Your task to perform on an android device: Go to Amazon Image 0: 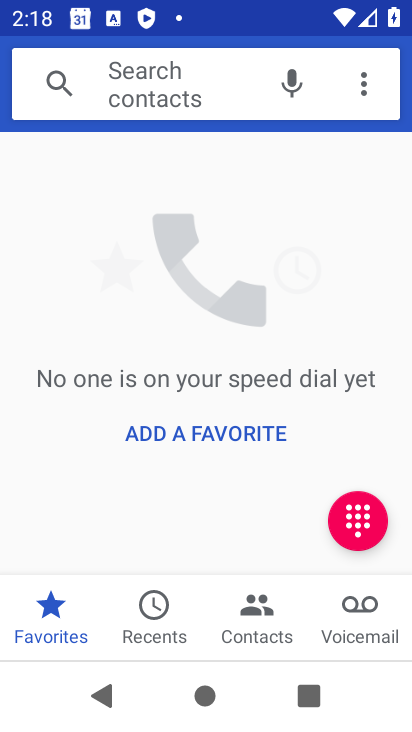
Step 0: press home button
Your task to perform on an android device: Go to Amazon Image 1: 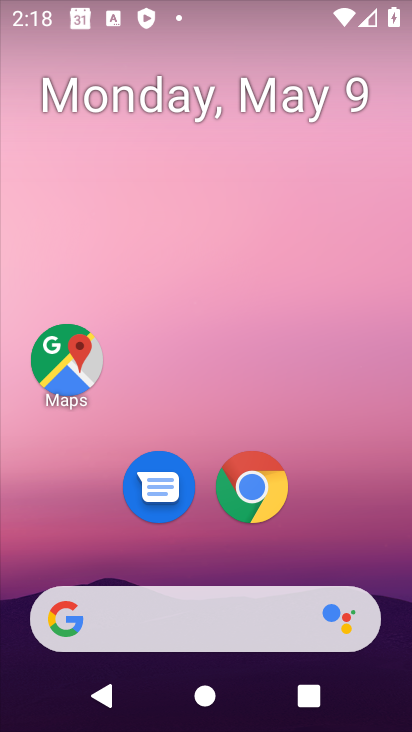
Step 1: click (252, 469)
Your task to perform on an android device: Go to Amazon Image 2: 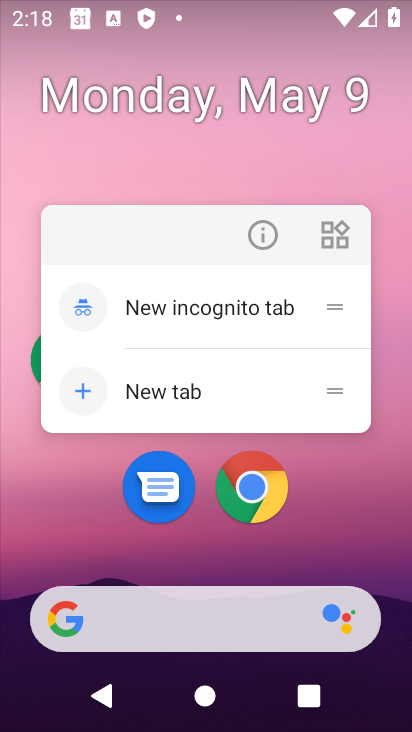
Step 2: click (252, 469)
Your task to perform on an android device: Go to Amazon Image 3: 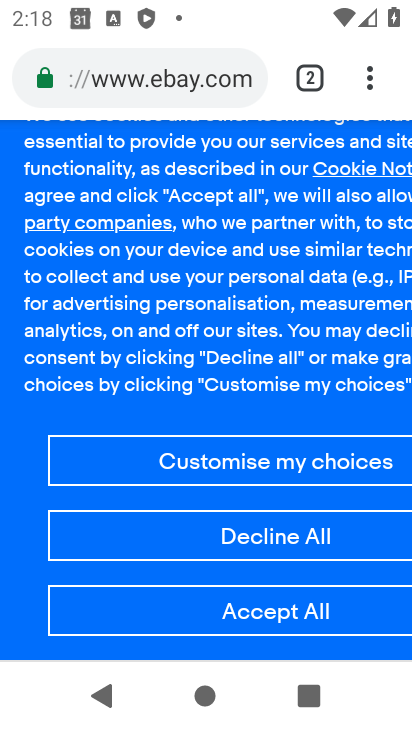
Step 3: drag from (362, 70) to (181, 137)
Your task to perform on an android device: Go to Amazon Image 4: 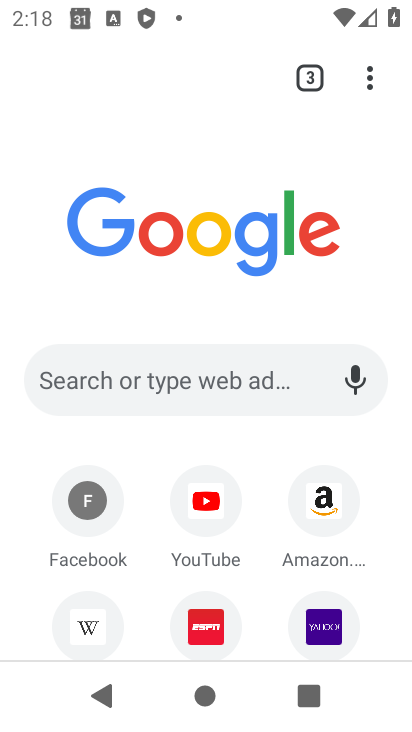
Step 4: click (319, 494)
Your task to perform on an android device: Go to Amazon Image 5: 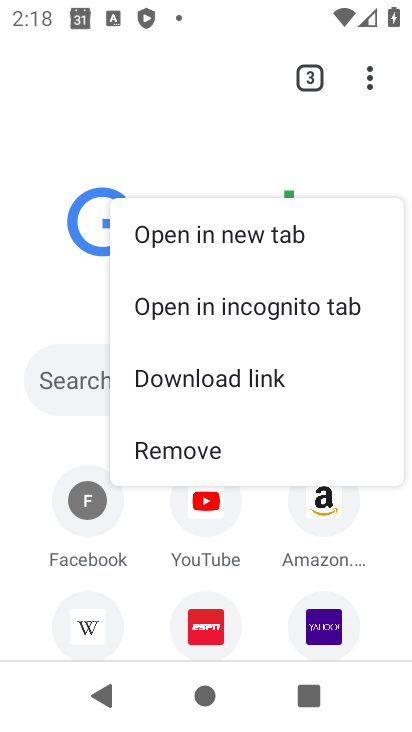
Step 5: click (332, 497)
Your task to perform on an android device: Go to Amazon Image 6: 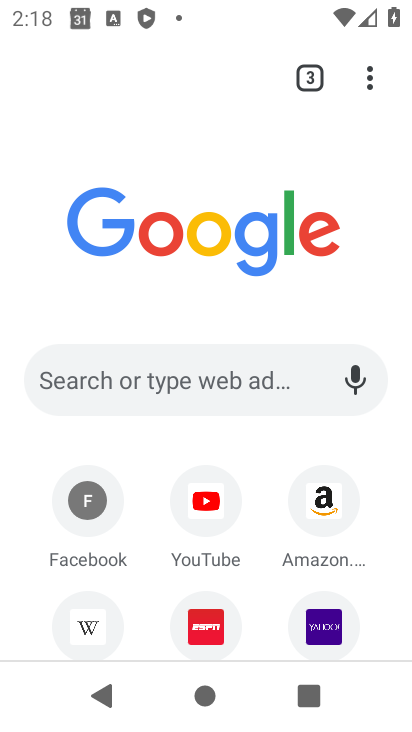
Step 6: click (333, 498)
Your task to perform on an android device: Go to Amazon Image 7: 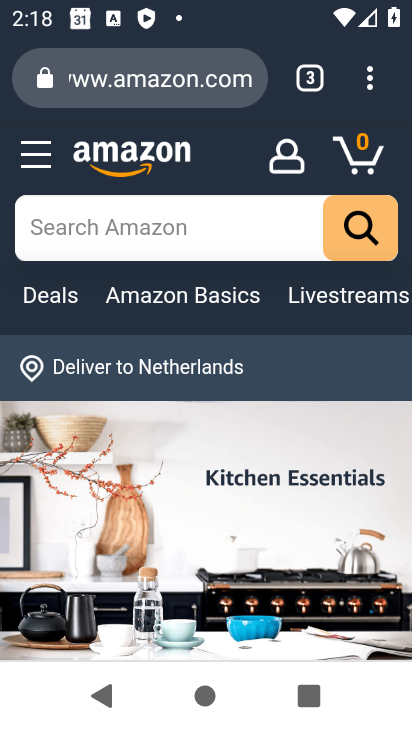
Step 7: task complete